Your task to perform on an android device: turn on wifi Image 0: 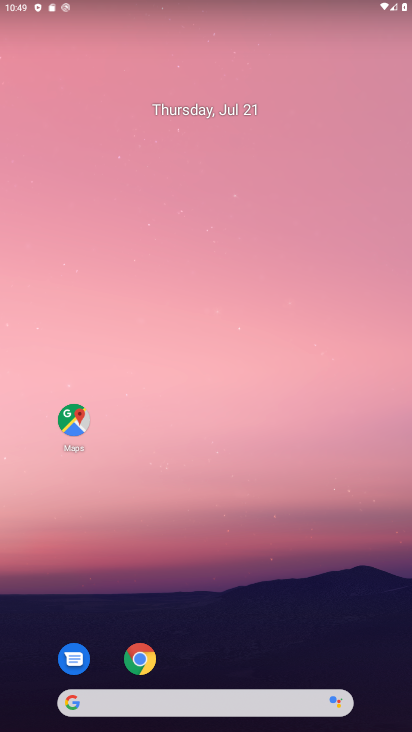
Step 0: drag from (298, 655) to (260, 208)
Your task to perform on an android device: turn on wifi Image 1: 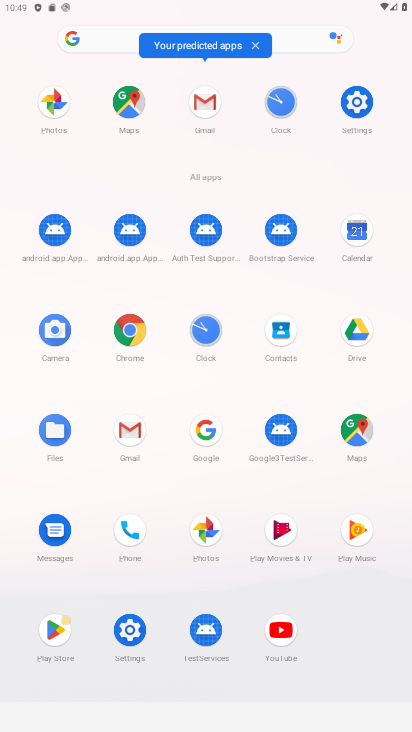
Step 1: click (354, 119)
Your task to perform on an android device: turn on wifi Image 2: 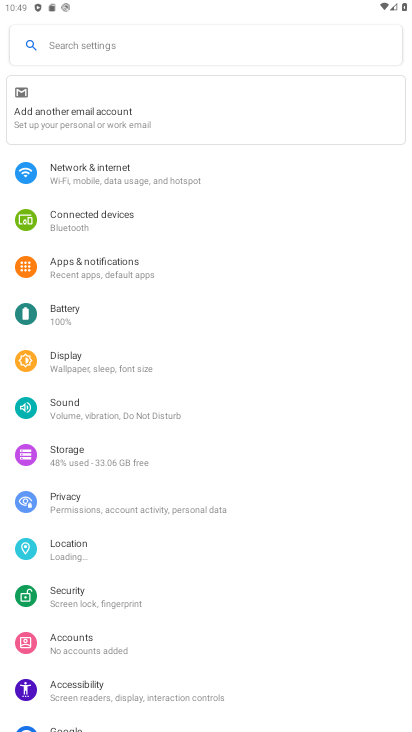
Step 2: click (288, 163)
Your task to perform on an android device: turn on wifi Image 3: 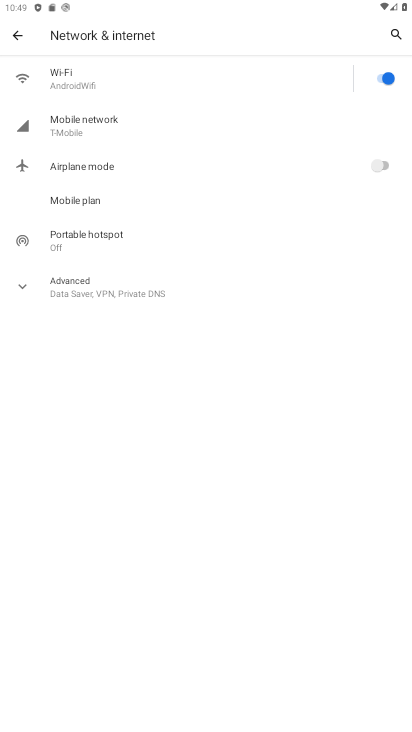
Step 3: task complete